Your task to perform on an android device: Search for Italian restaurants on Maps Image 0: 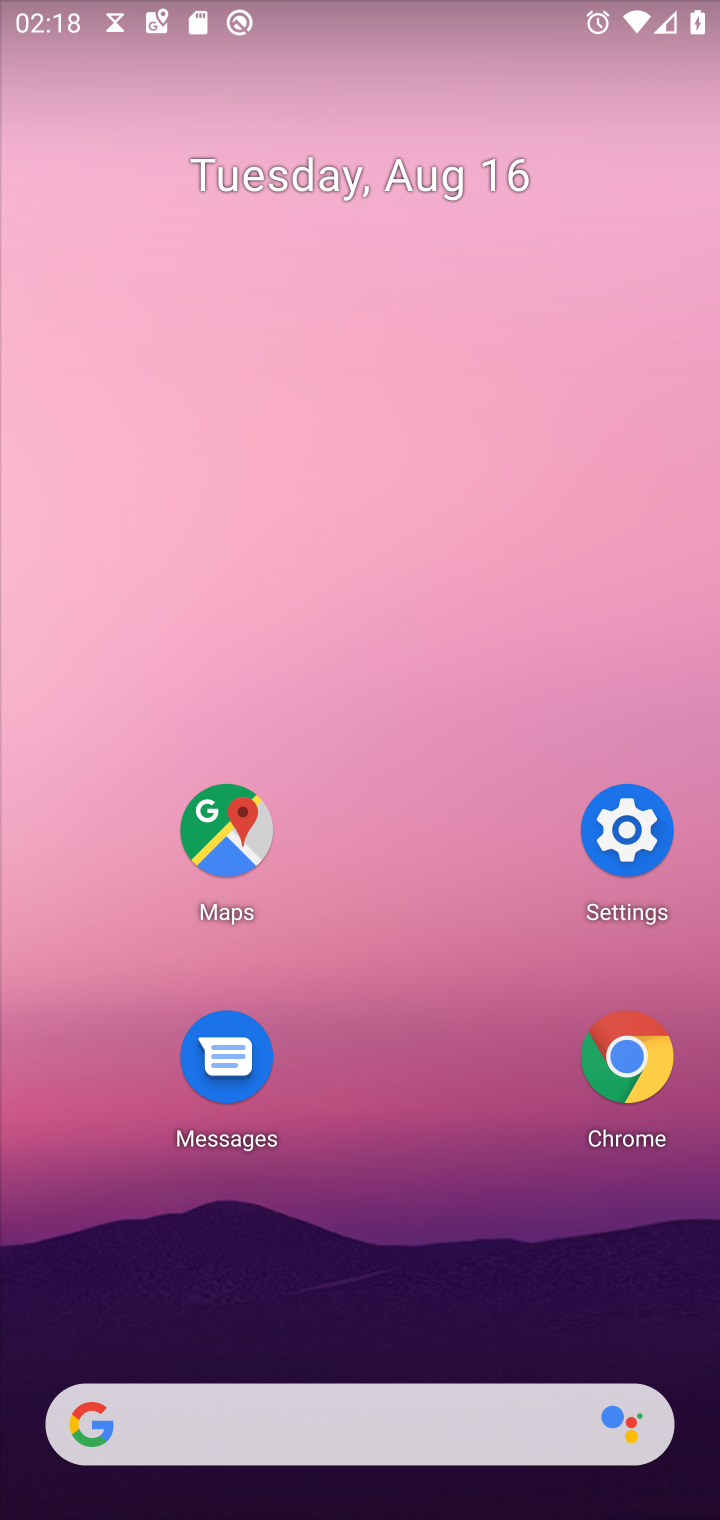
Step 0: click (219, 830)
Your task to perform on an android device: Search for Italian restaurants on Maps Image 1: 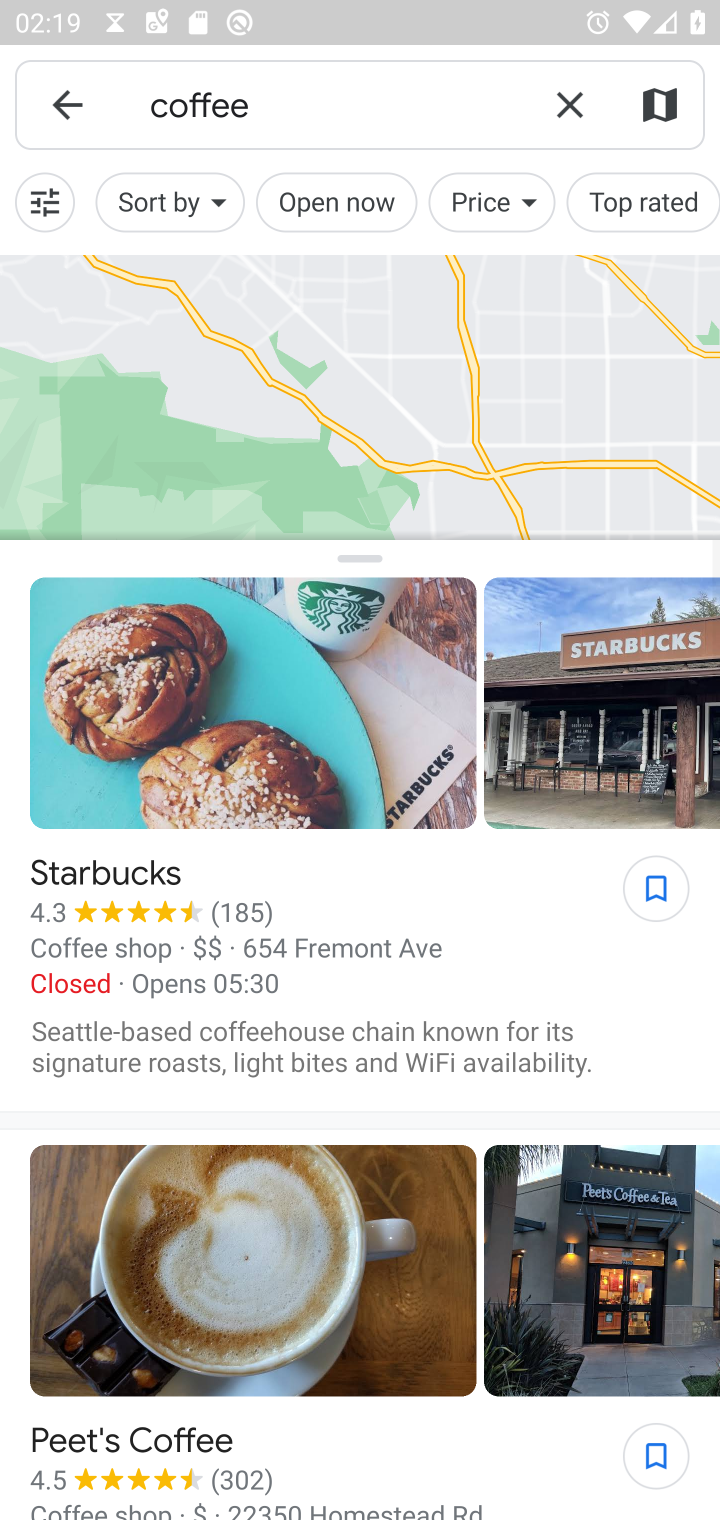
Step 1: click (569, 98)
Your task to perform on an android device: Search for Italian restaurants on Maps Image 2: 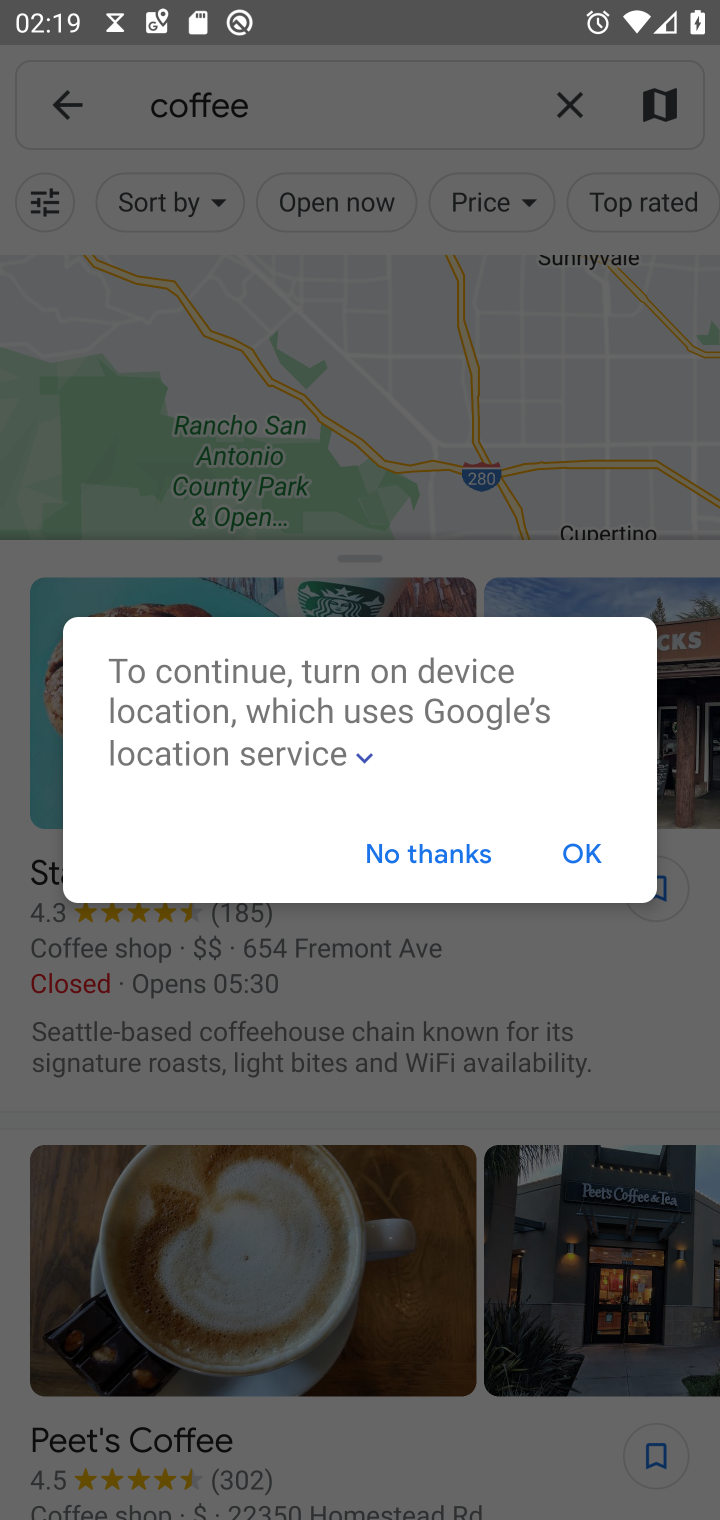
Step 2: click (581, 862)
Your task to perform on an android device: Search for Italian restaurants on Maps Image 3: 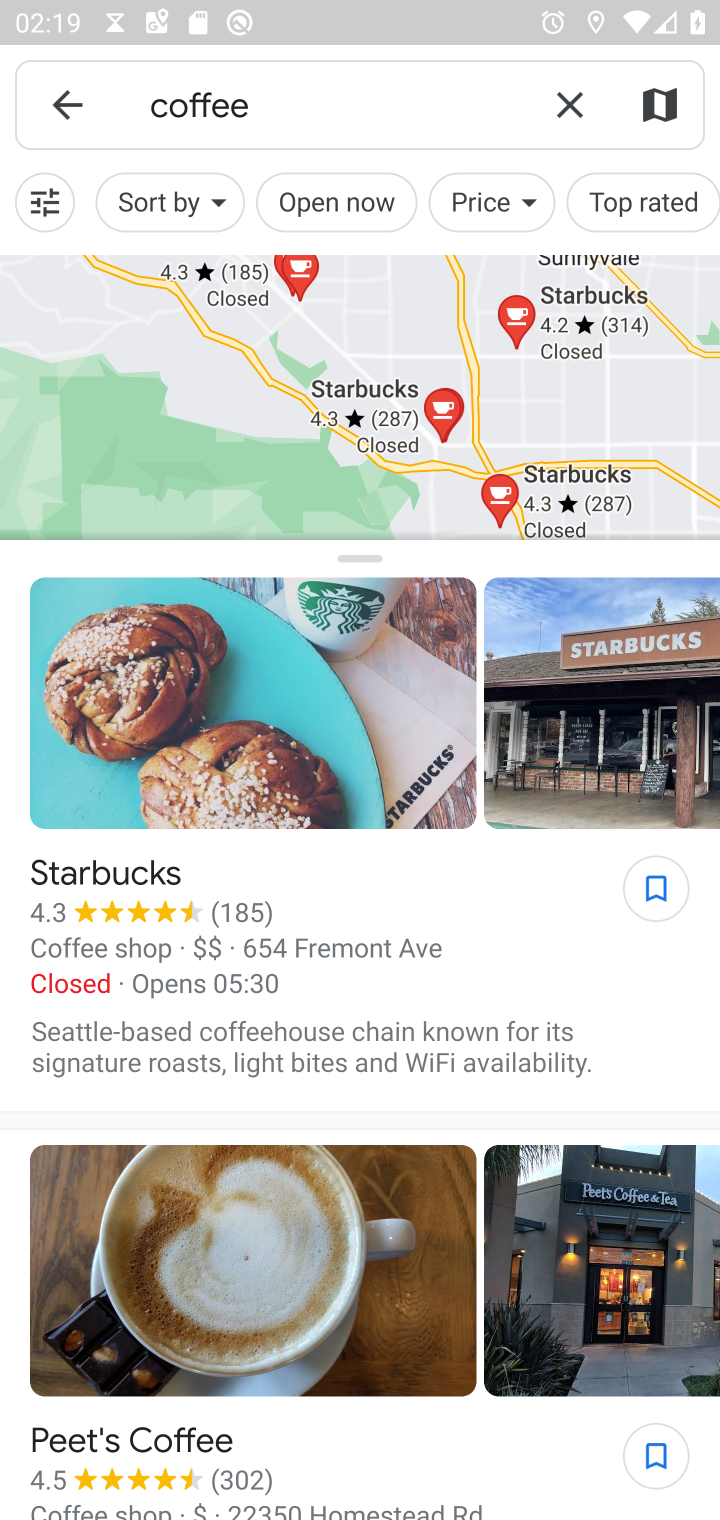
Step 3: click (574, 101)
Your task to perform on an android device: Search for Italian restaurants on Maps Image 4: 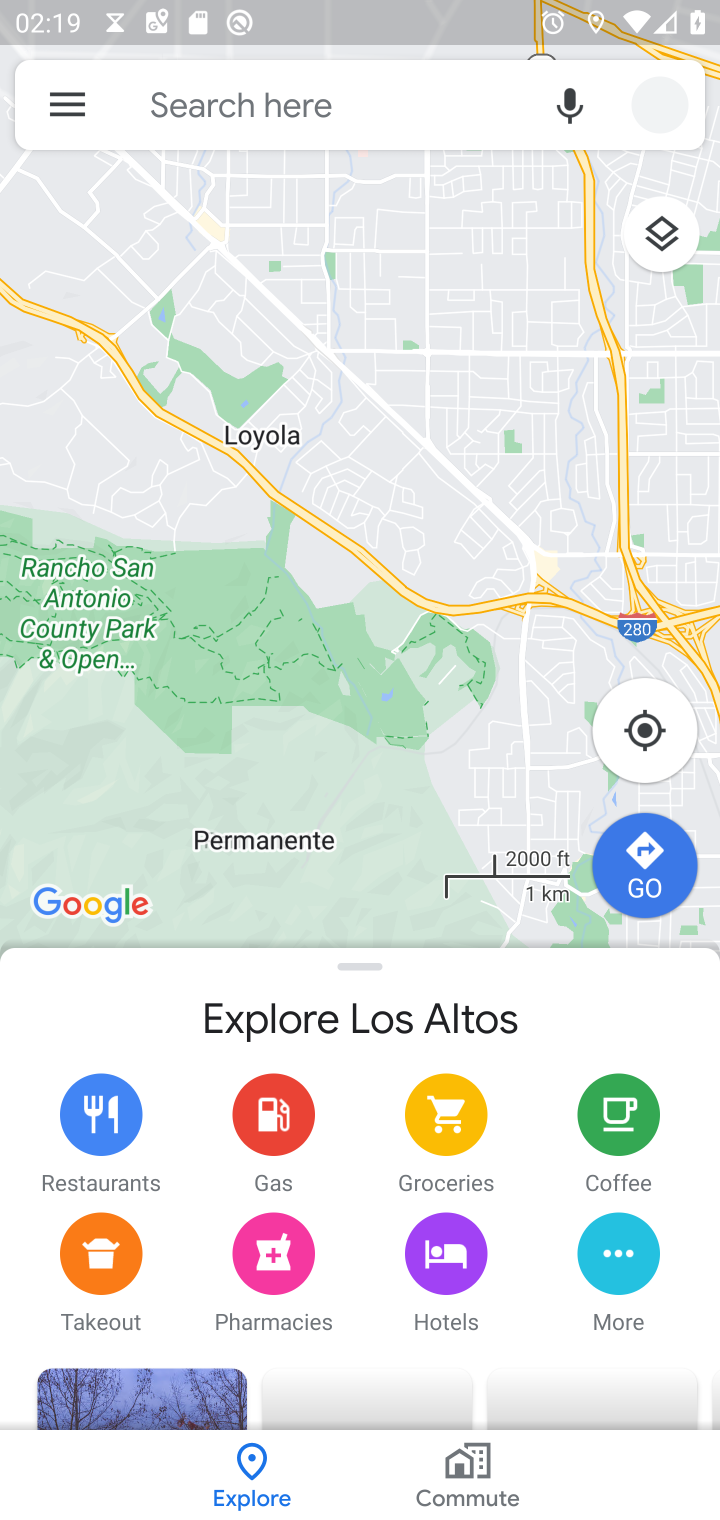
Step 4: click (376, 102)
Your task to perform on an android device: Search for Italian restaurants on Maps Image 5: 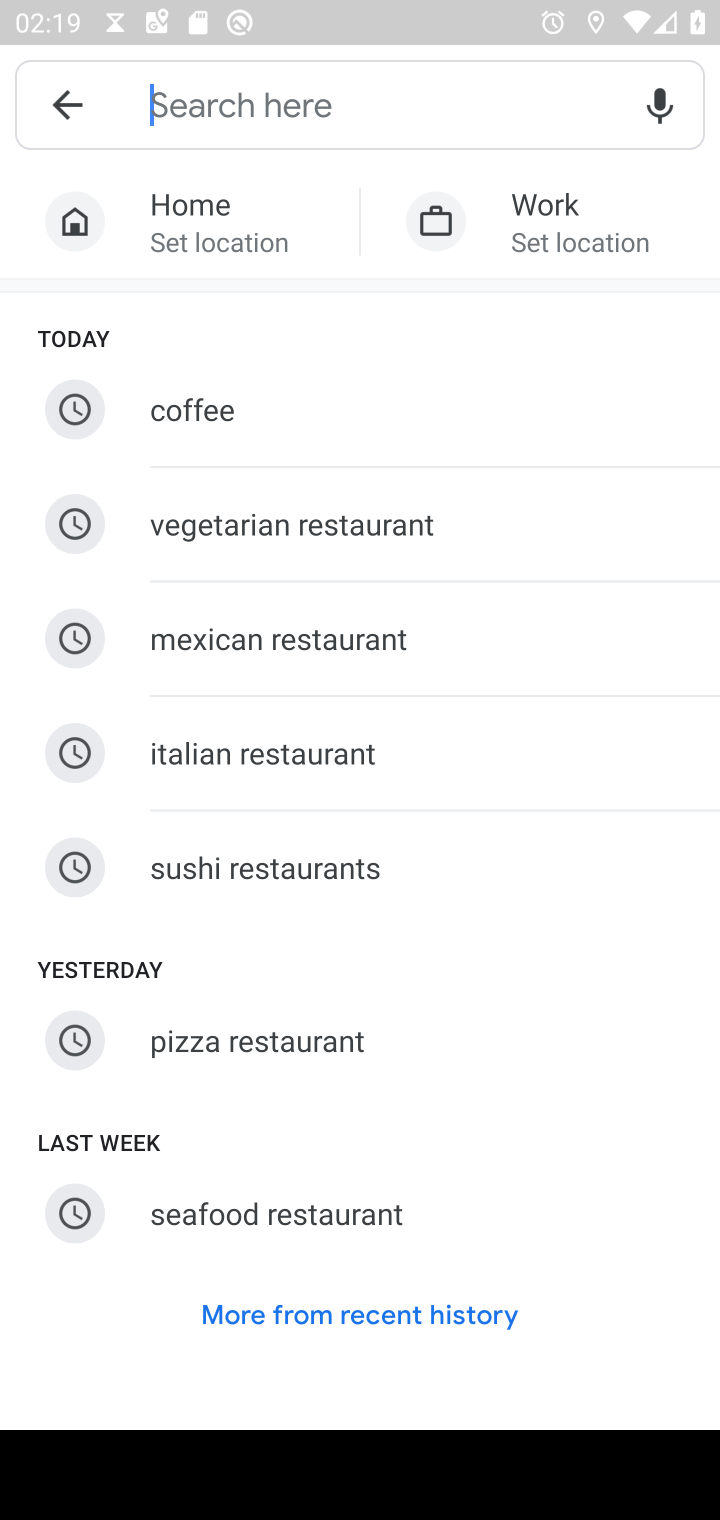
Step 5: click (300, 758)
Your task to perform on an android device: Search for Italian restaurants on Maps Image 6: 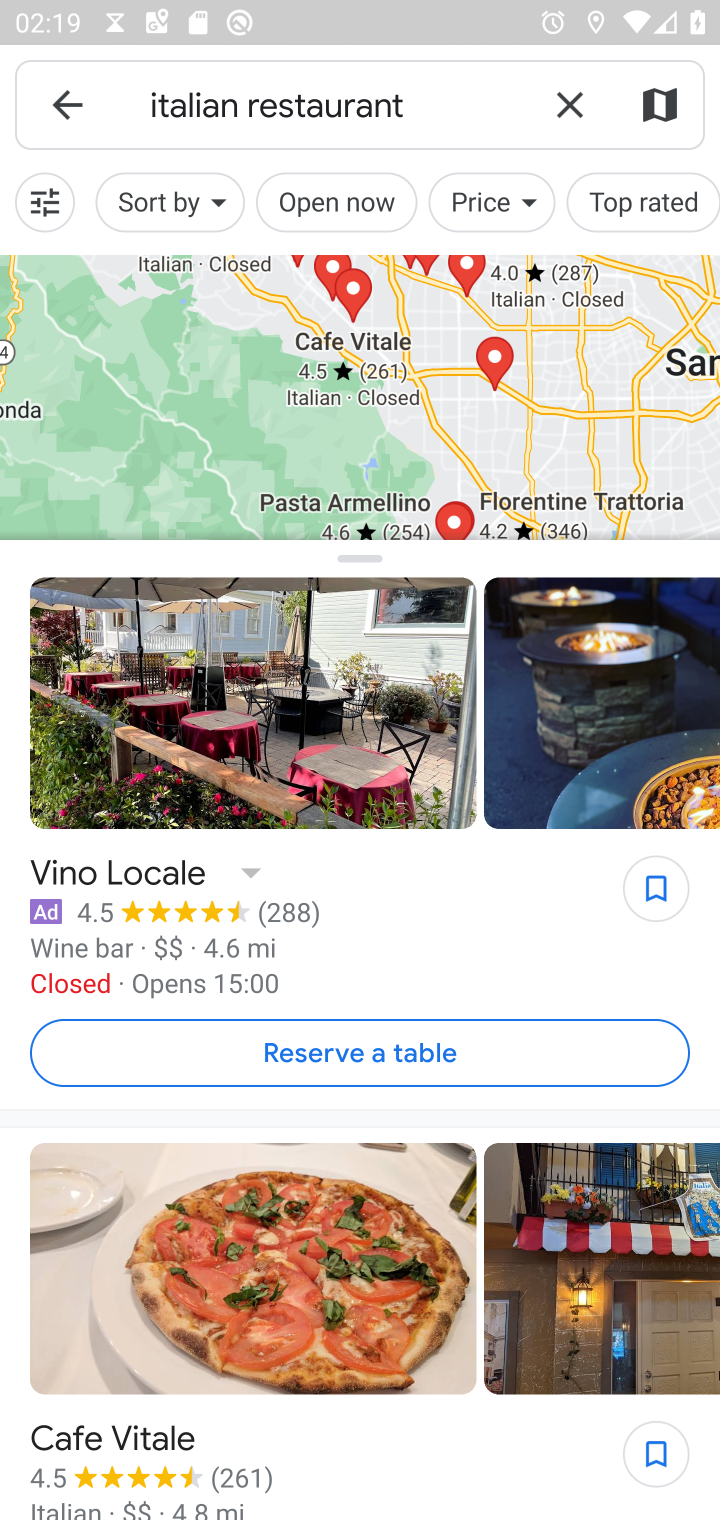
Step 6: drag from (513, 1187) to (674, 220)
Your task to perform on an android device: Search for Italian restaurants on Maps Image 7: 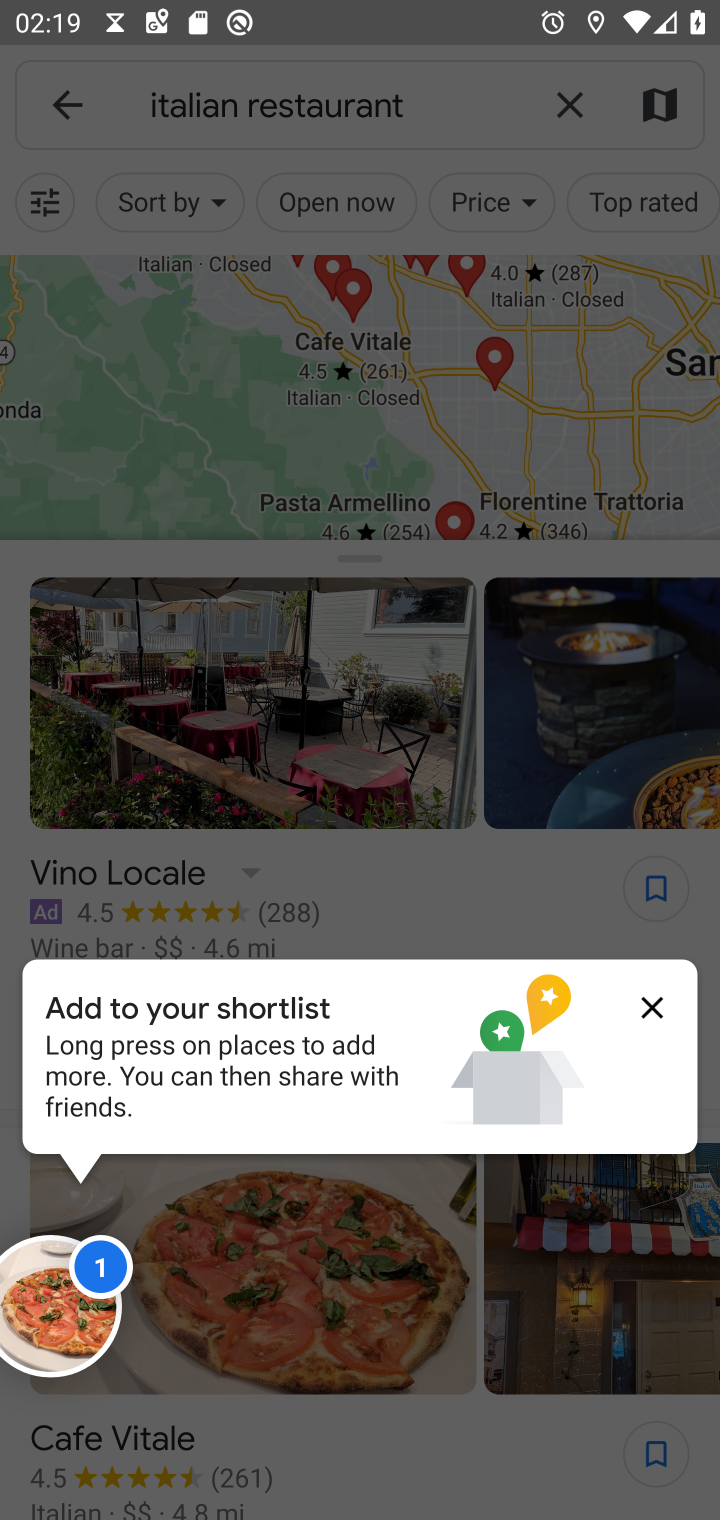
Step 7: click (650, 1004)
Your task to perform on an android device: Search for Italian restaurants on Maps Image 8: 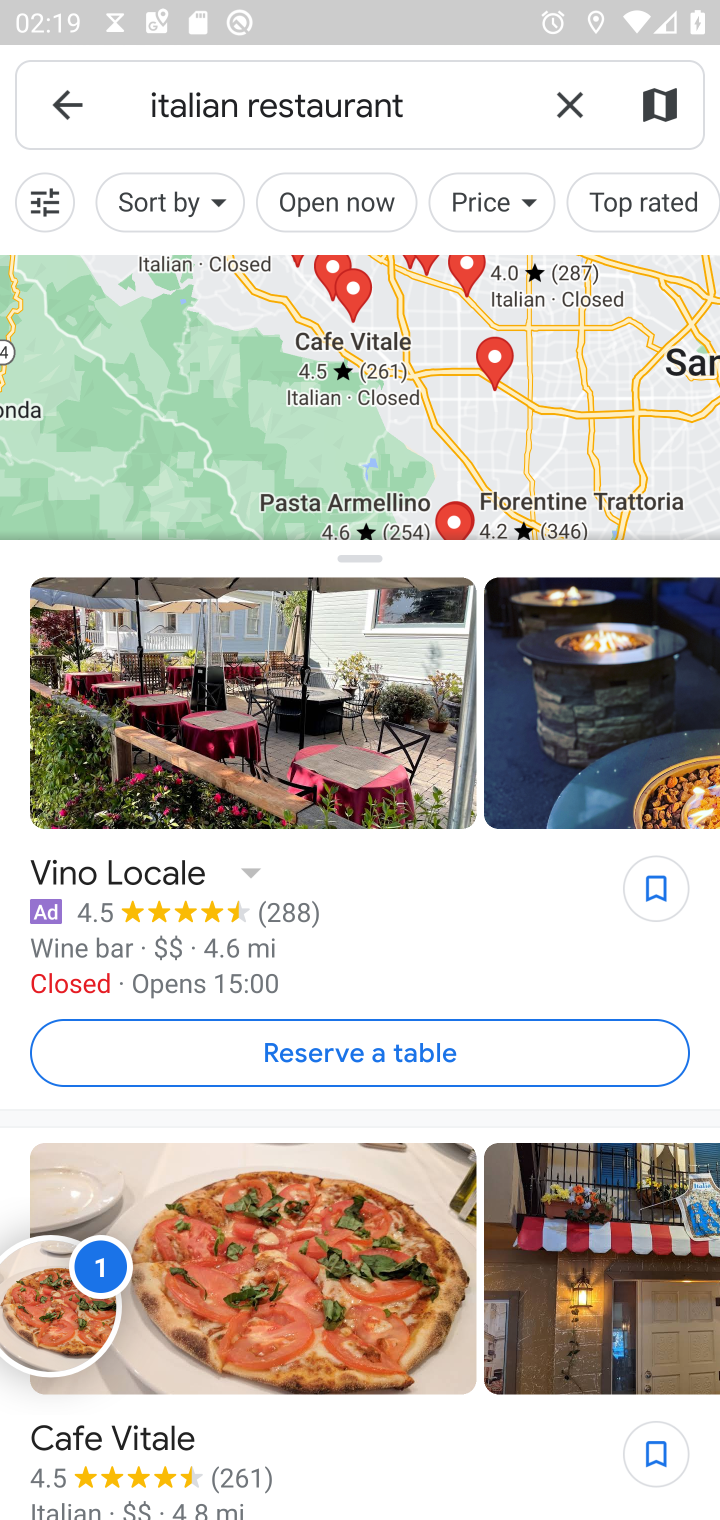
Step 8: drag from (90, 1311) to (338, 1498)
Your task to perform on an android device: Search for Italian restaurants on Maps Image 9: 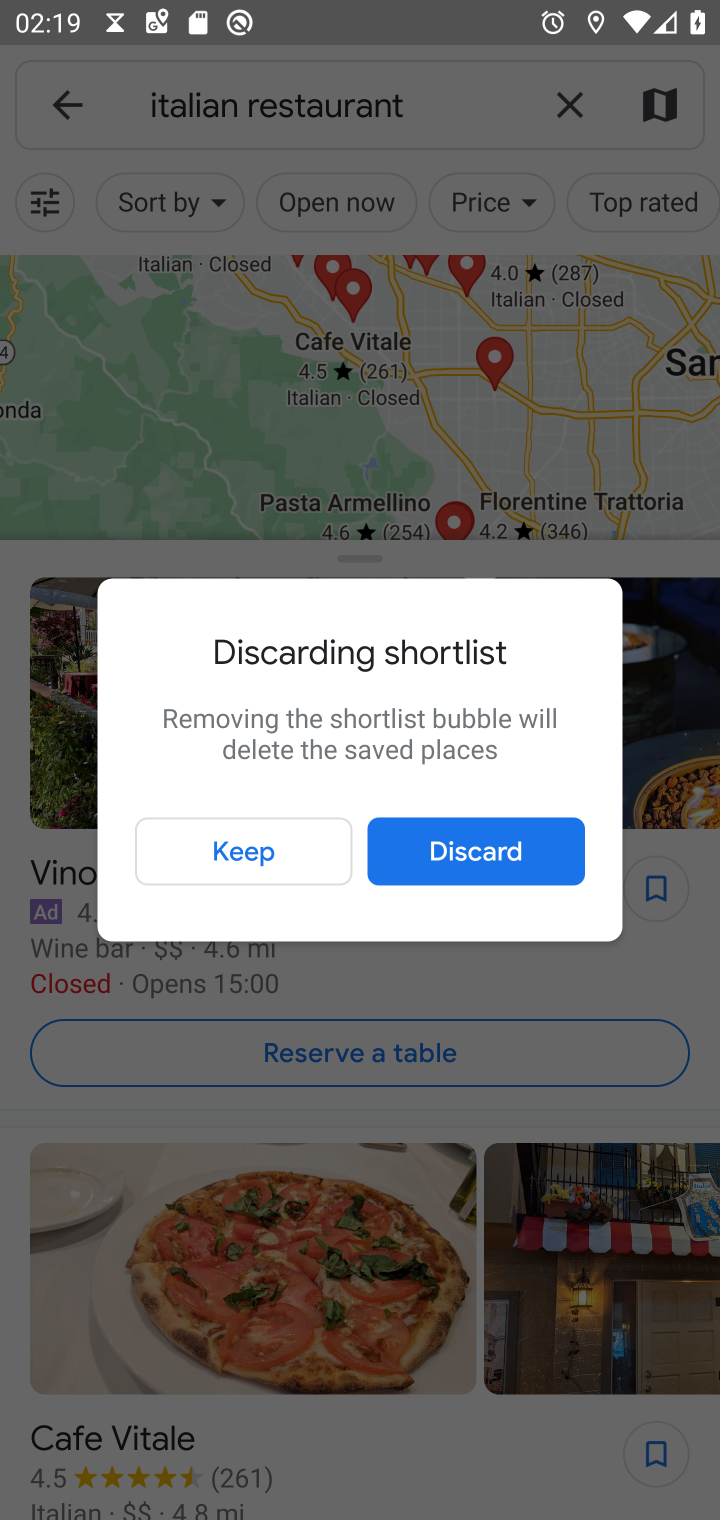
Step 9: click (513, 848)
Your task to perform on an android device: Search for Italian restaurants on Maps Image 10: 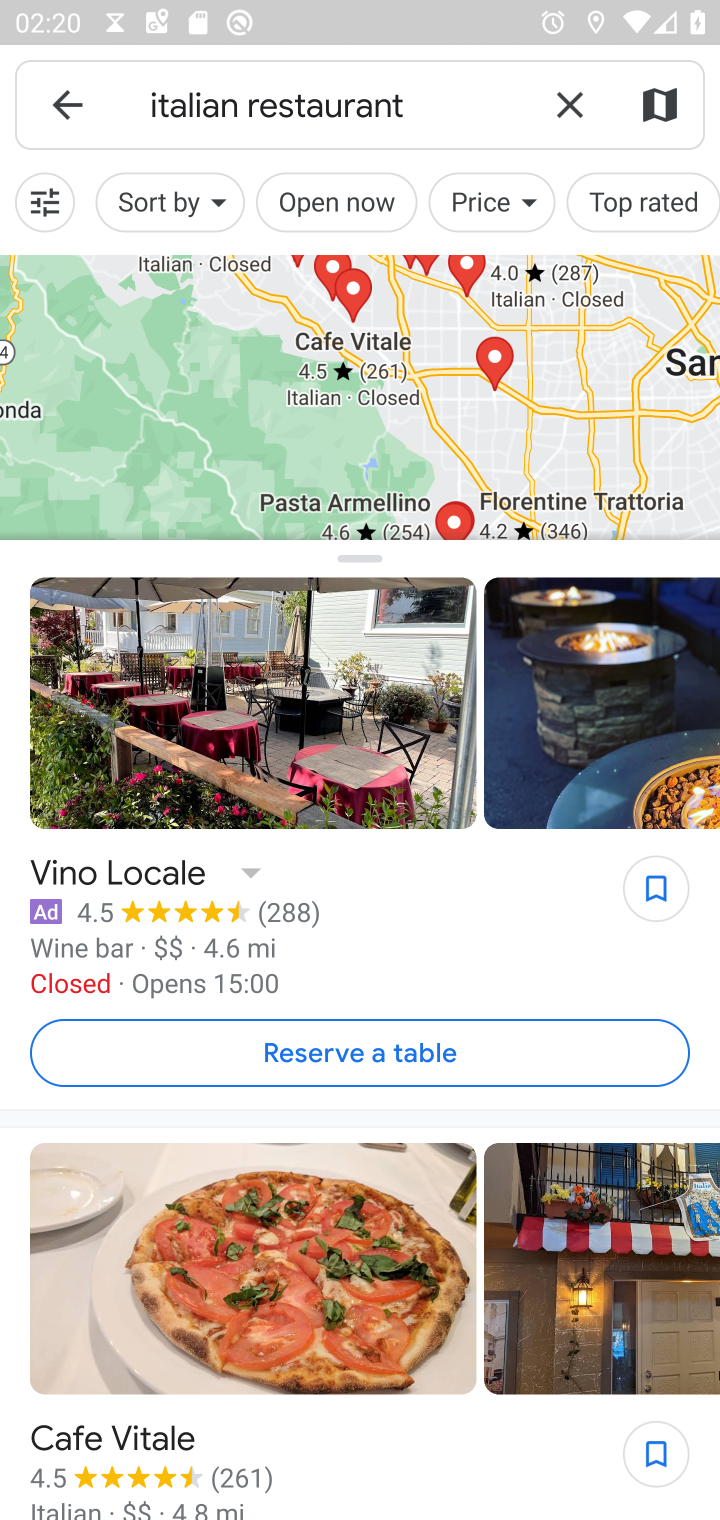
Step 10: task complete